Your task to perform on an android device: Turn on the flashlight Image 0: 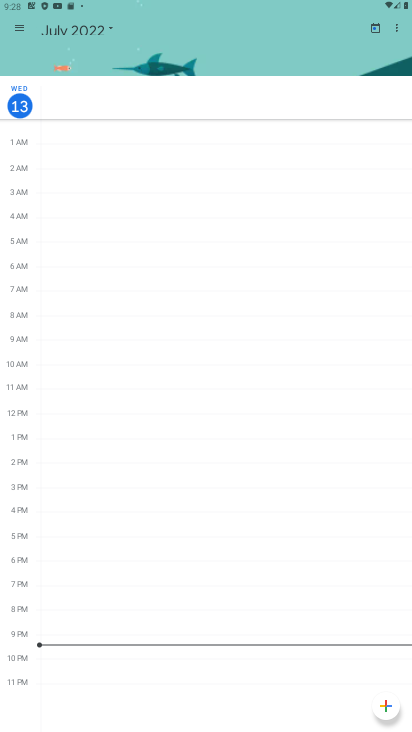
Step 0: press home button
Your task to perform on an android device: Turn on the flashlight Image 1: 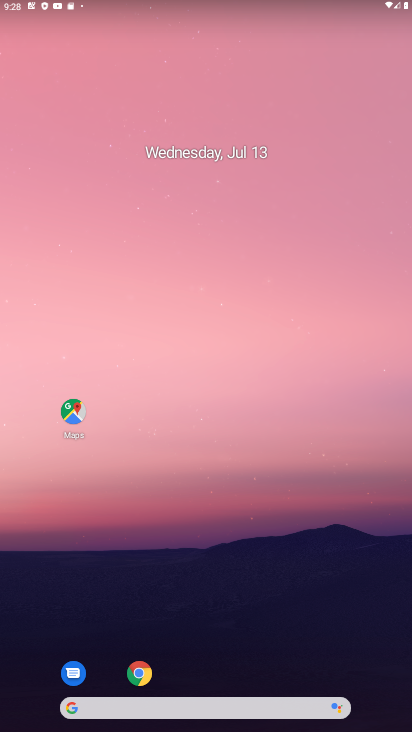
Step 1: drag from (164, 686) to (202, 180)
Your task to perform on an android device: Turn on the flashlight Image 2: 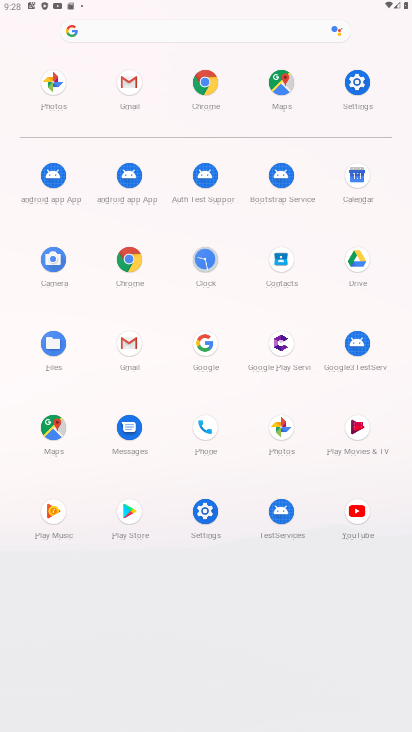
Step 2: click (355, 85)
Your task to perform on an android device: Turn on the flashlight Image 3: 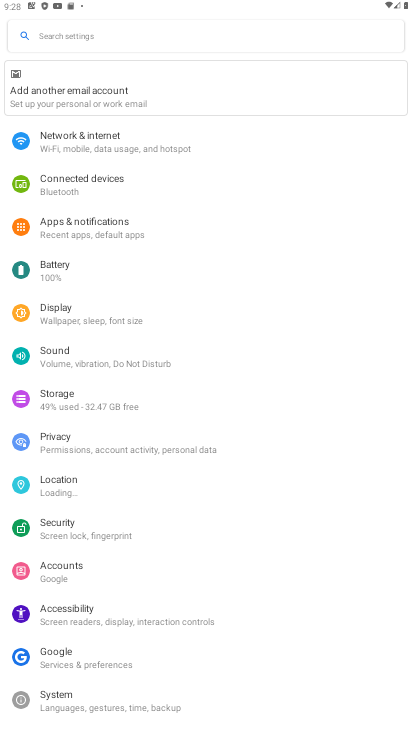
Step 3: task complete